Your task to perform on an android device: read, delete, or share a saved page in the chrome app Image 0: 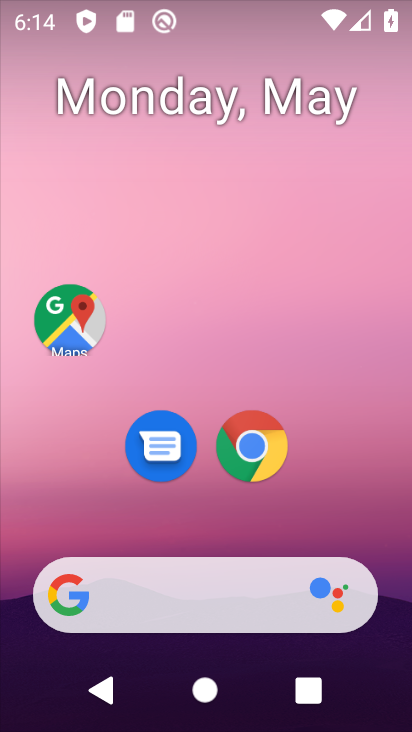
Step 0: click (256, 440)
Your task to perform on an android device: read, delete, or share a saved page in the chrome app Image 1: 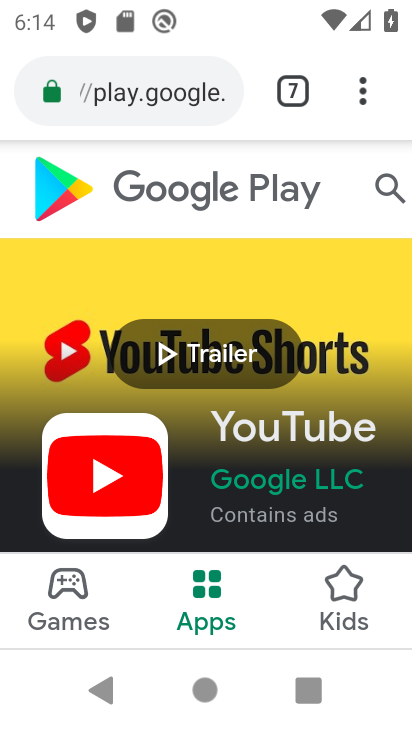
Step 1: click (357, 84)
Your task to perform on an android device: read, delete, or share a saved page in the chrome app Image 2: 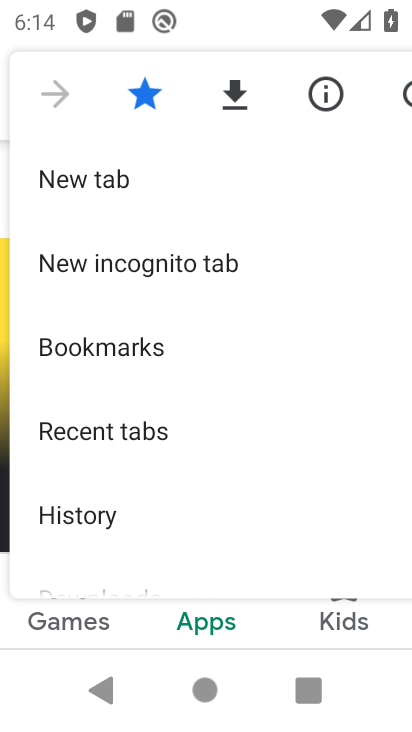
Step 2: drag from (275, 484) to (230, 273)
Your task to perform on an android device: read, delete, or share a saved page in the chrome app Image 3: 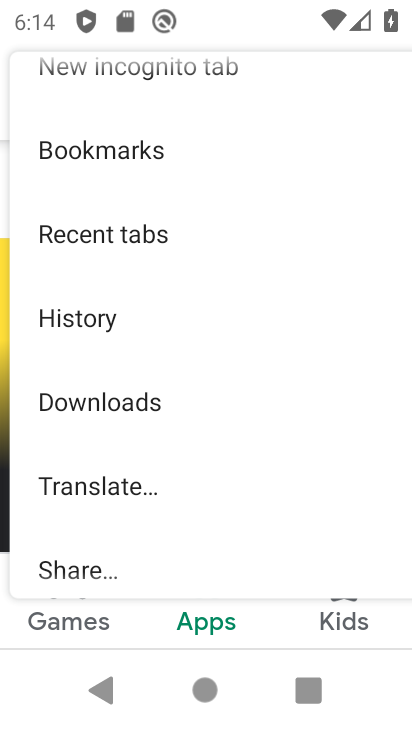
Step 3: click (105, 396)
Your task to perform on an android device: read, delete, or share a saved page in the chrome app Image 4: 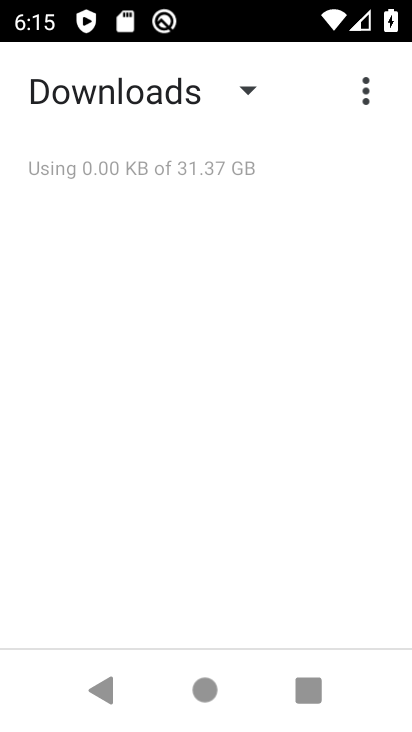
Step 4: task complete